Your task to perform on an android device: turn off wifi Image 0: 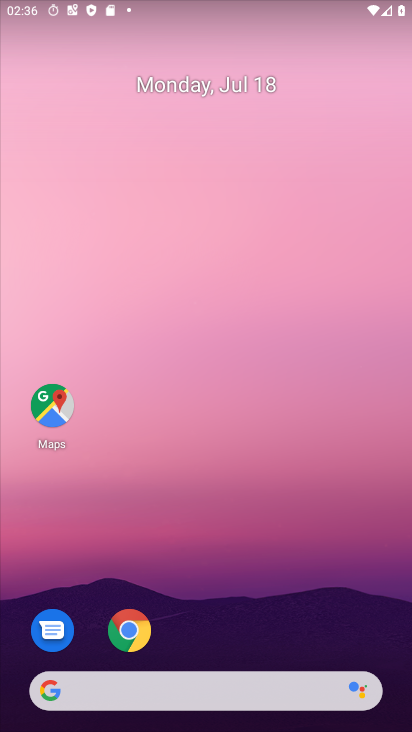
Step 0: drag from (175, 2) to (238, 392)
Your task to perform on an android device: turn off wifi Image 1: 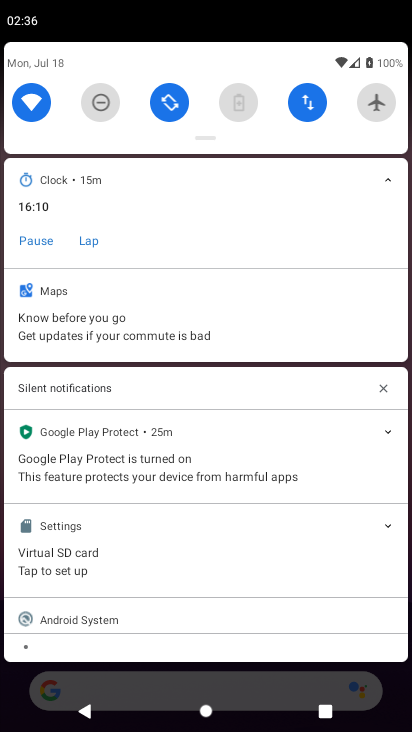
Step 1: click (33, 86)
Your task to perform on an android device: turn off wifi Image 2: 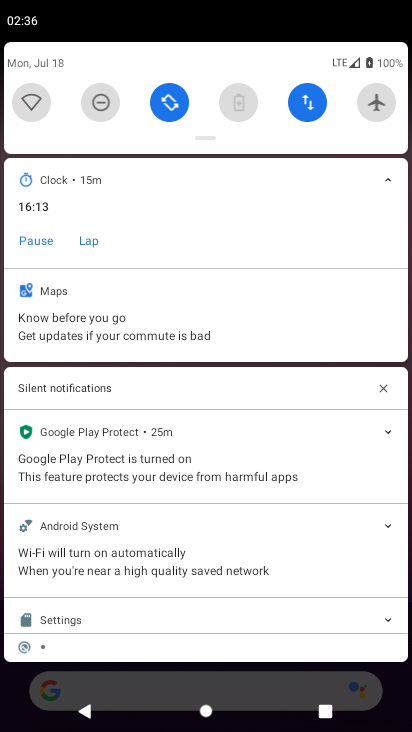
Step 2: task complete